Your task to perform on an android device: Open notification settings Image 0: 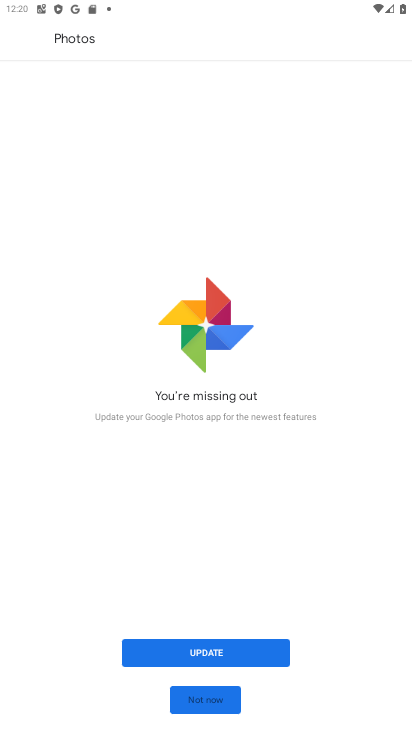
Step 0: press home button
Your task to perform on an android device: Open notification settings Image 1: 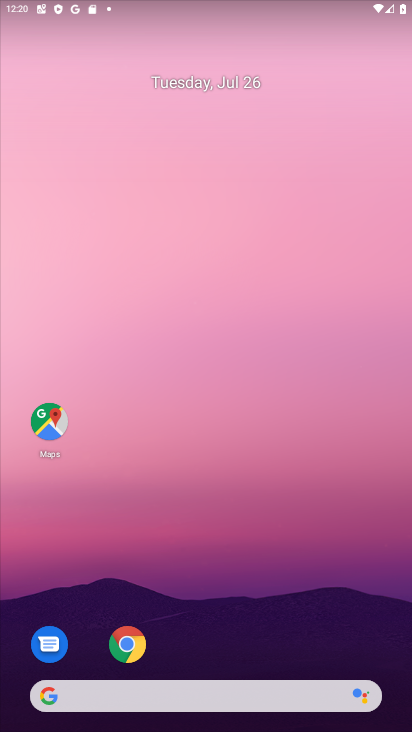
Step 1: drag from (270, 657) to (254, 0)
Your task to perform on an android device: Open notification settings Image 2: 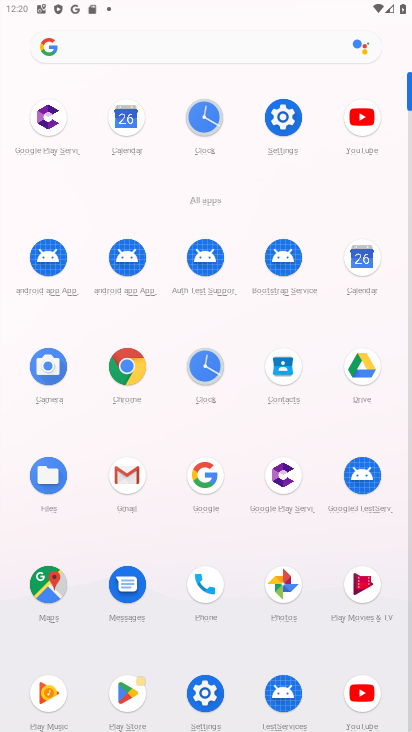
Step 2: click (290, 123)
Your task to perform on an android device: Open notification settings Image 3: 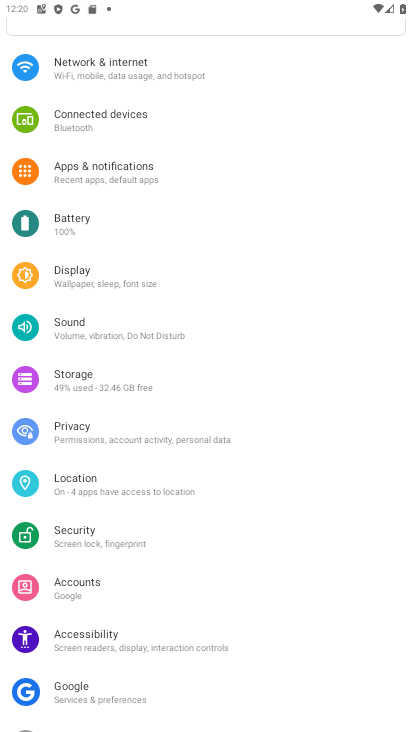
Step 3: click (67, 171)
Your task to perform on an android device: Open notification settings Image 4: 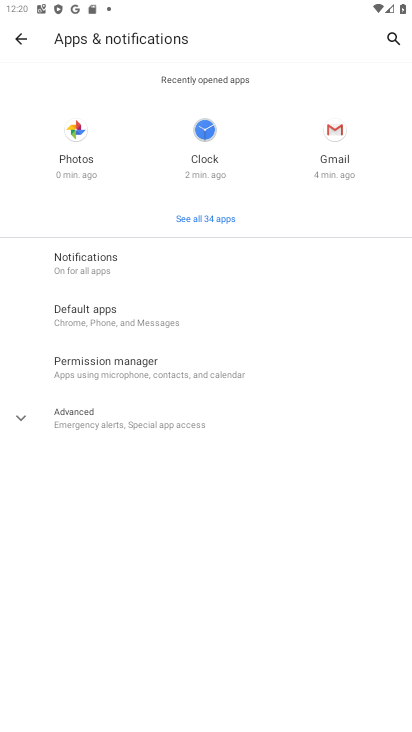
Step 4: click (81, 265)
Your task to perform on an android device: Open notification settings Image 5: 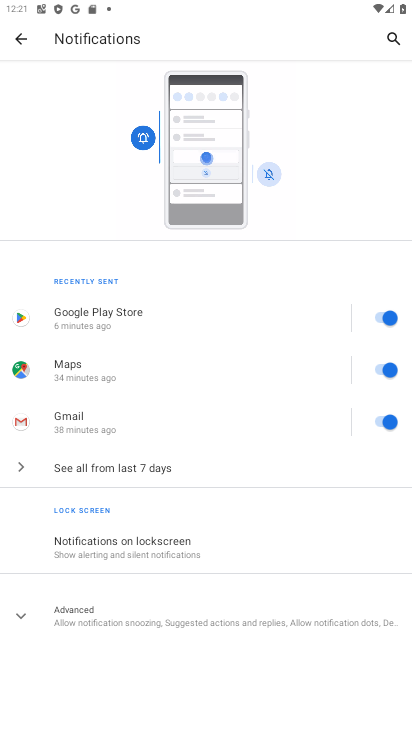
Step 5: task complete